Your task to perform on an android device: turn on the 12-hour format for clock Image 0: 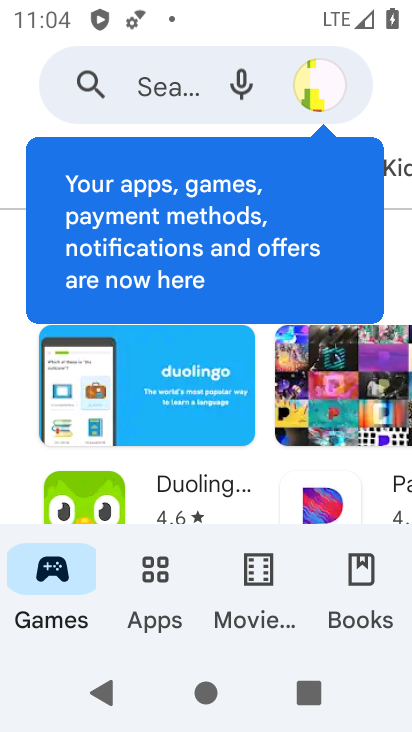
Step 0: press back button
Your task to perform on an android device: turn on the 12-hour format for clock Image 1: 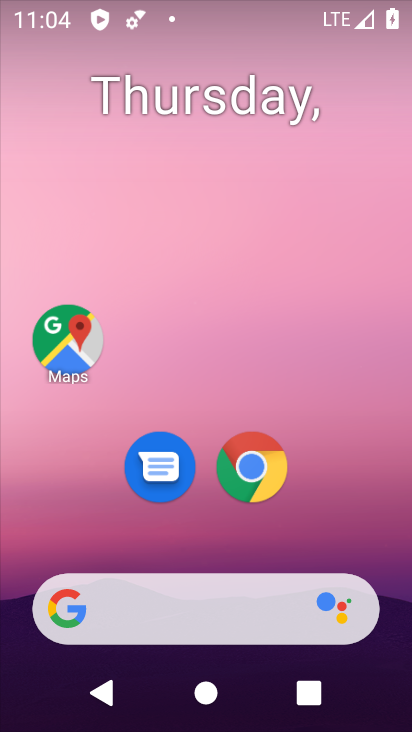
Step 1: drag from (222, 510) to (286, 64)
Your task to perform on an android device: turn on the 12-hour format for clock Image 2: 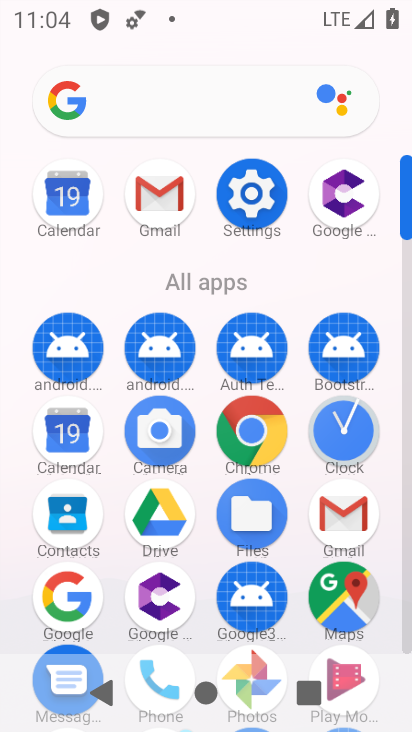
Step 2: click (350, 434)
Your task to perform on an android device: turn on the 12-hour format for clock Image 3: 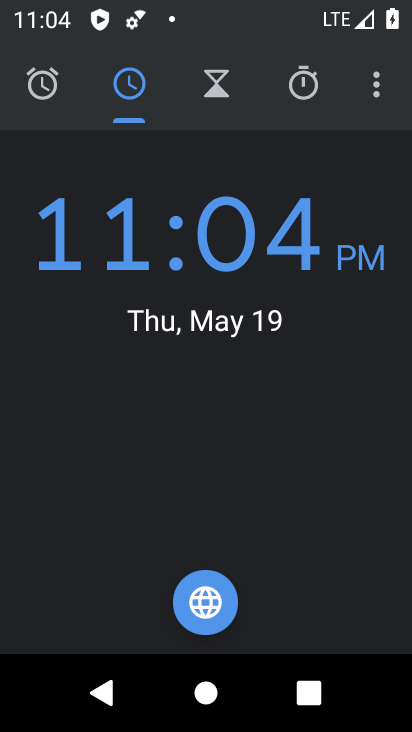
Step 3: click (379, 79)
Your task to perform on an android device: turn on the 12-hour format for clock Image 4: 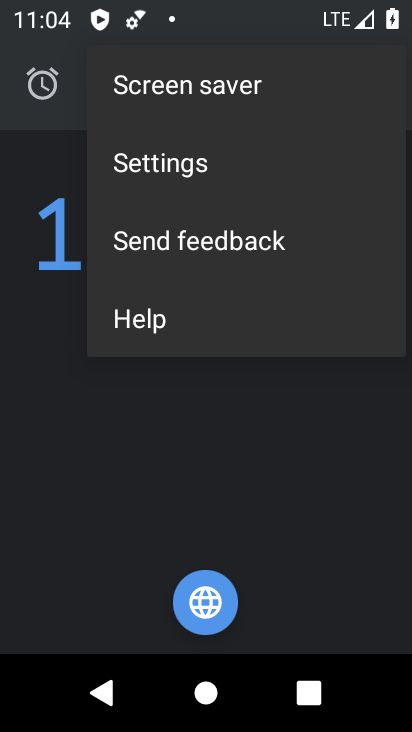
Step 4: click (169, 149)
Your task to perform on an android device: turn on the 12-hour format for clock Image 5: 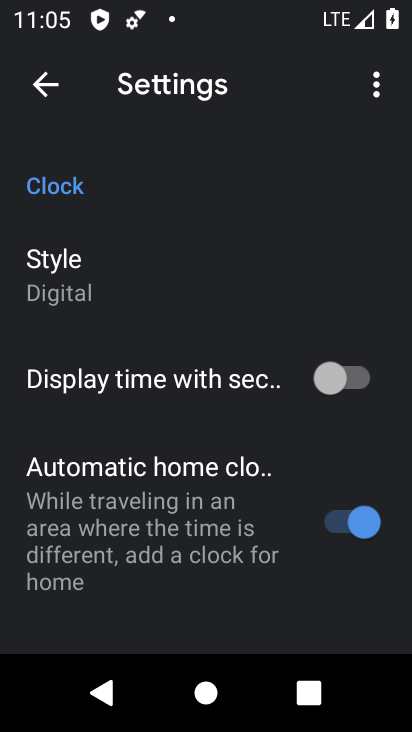
Step 5: drag from (160, 550) to (268, 118)
Your task to perform on an android device: turn on the 12-hour format for clock Image 6: 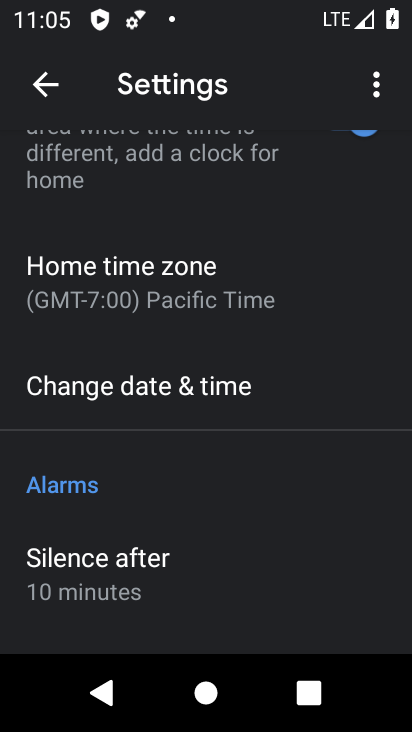
Step 6: click (148, 394)
Your task to perform on an android device: turn on the 12-hour format for clock Image 7: 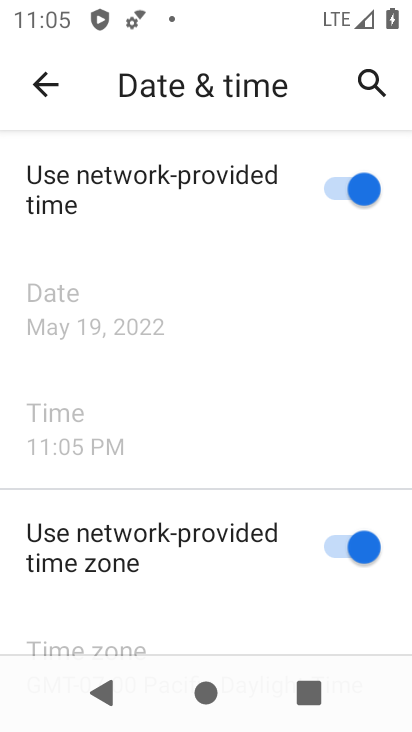
Step 7: task complete